Your task to perform on an android device: toggle notification dots Image 0: 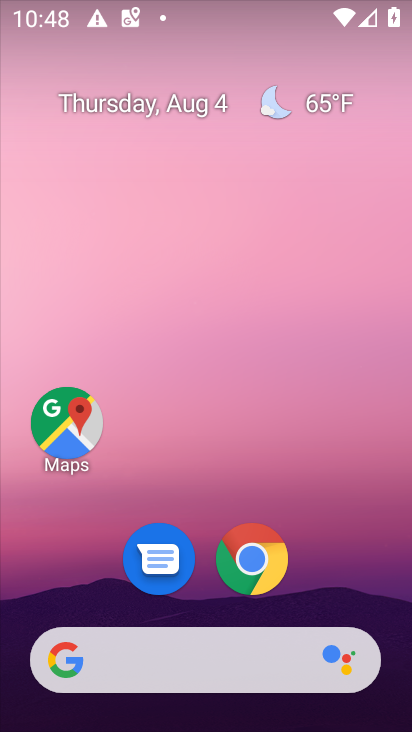
Step 0: drag from (197, 645) to (161, 108)
Your task to perform on an android device: toggle notification dots Image 1: 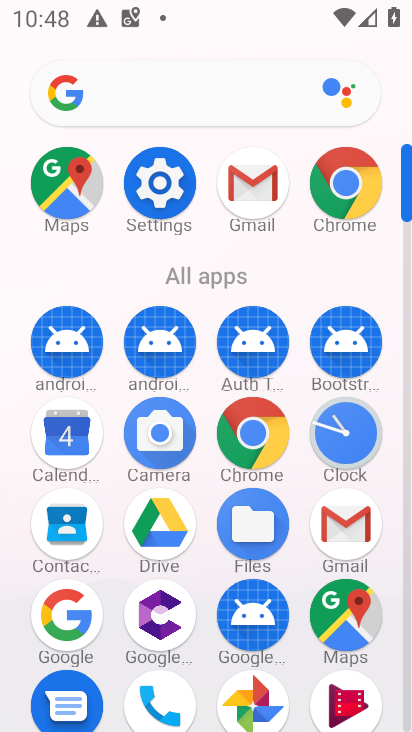
Step 1: click (151, 182)
Your task to perform on an android device: toggle notification dots Image 2: 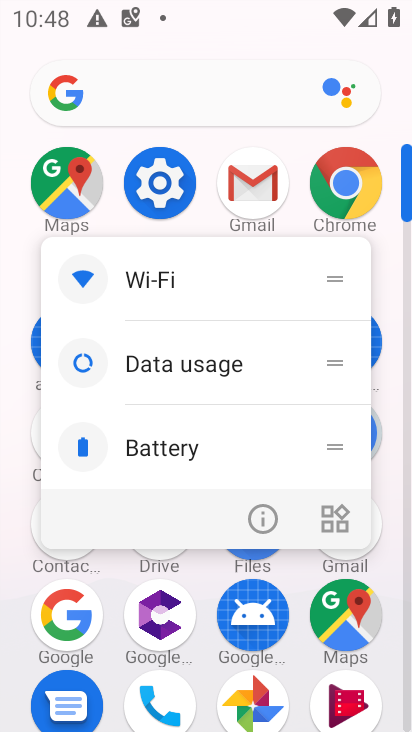
Step 2: click (180, 211)
Your task to perform on an android device: toggle notification dots Image 3: 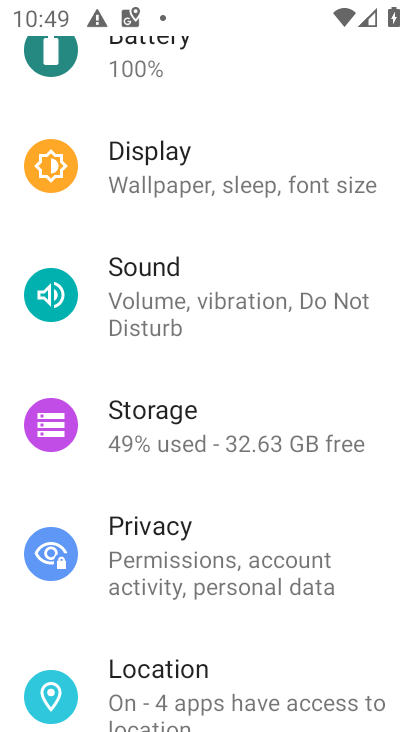
Step 3: drag from (173, 307) to (169, 730)
Your task to perform on an android device: toggle notification dots Image 4: 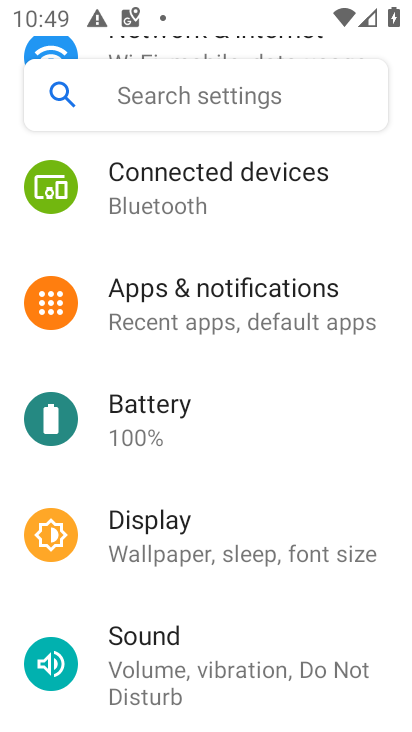
Step 4: click (200, 318)
Your task to perform on an android device: toggle notification dots Image 5: 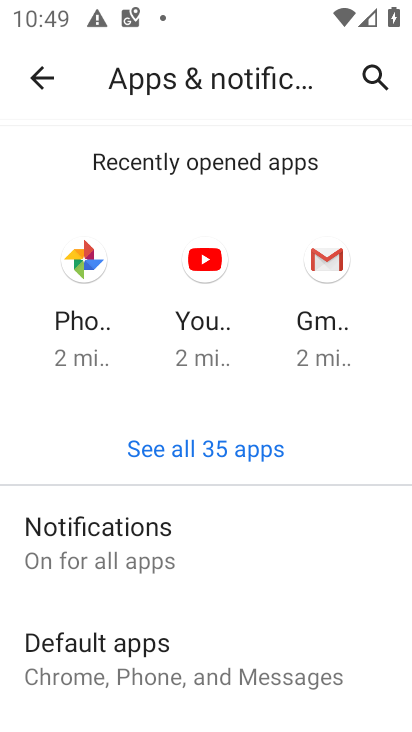
Step 5: click (159, 574)
Your task to perform on an android device: toggle notification dots Image 6: 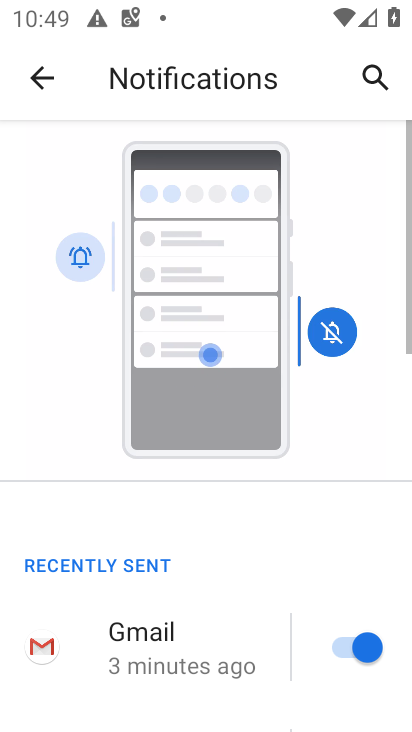
Step 6: drag from (219, 663) to (224, 109)
Your task to perform on an android device: toggle notification dots Image 7: 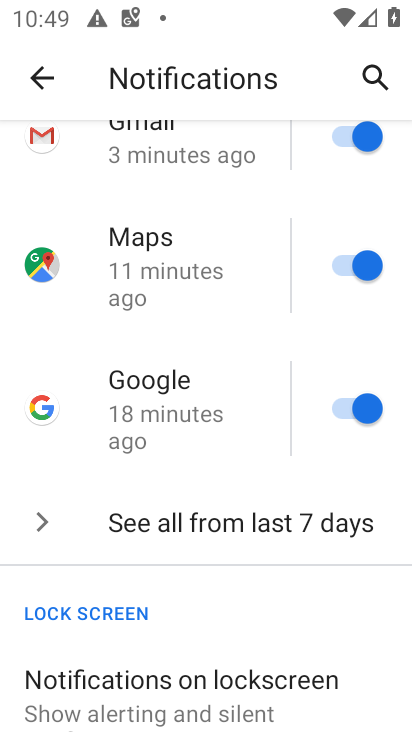
Step 7: drag from (184, 678) to (171, 187)
Your task to perform on an android device: toggle notification dots Image 8: 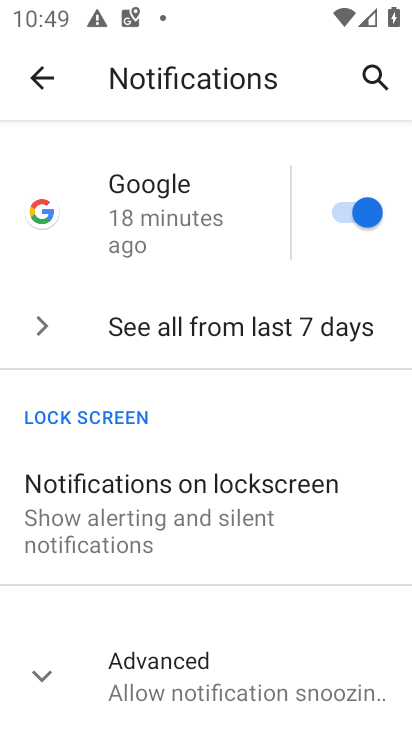
Step 8: click (153, 660)
Your task to perform on an android device: toggle notification dots Image 9: 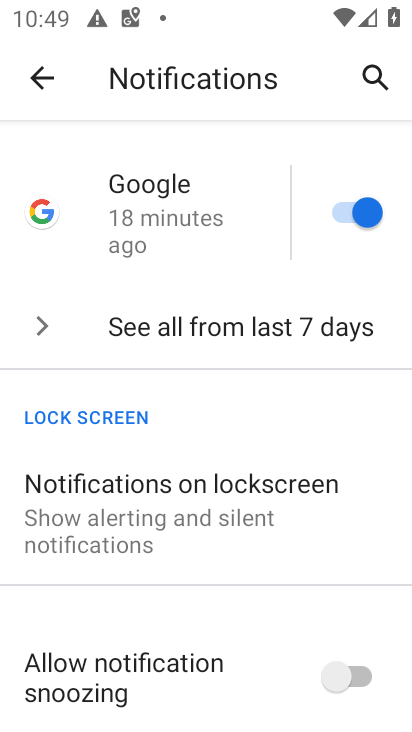
Step 9: drag from (191, 615) to (163, 137)
Your task to perform on an android device: toggle notification dots Image 10: 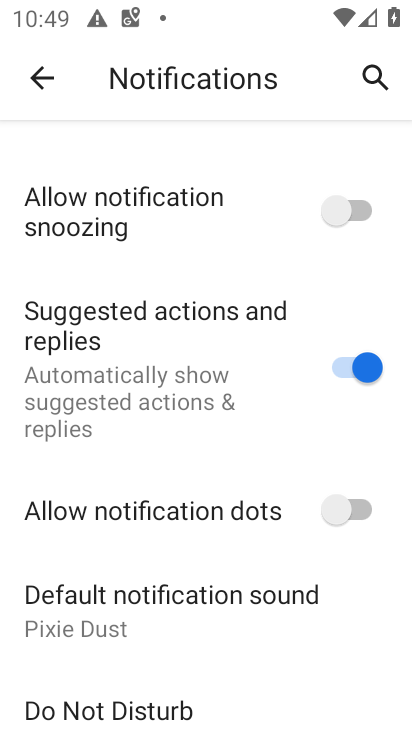
Step 10: click (338, 508)
Your task to perform on an android device: toggle notification dots Image 11: 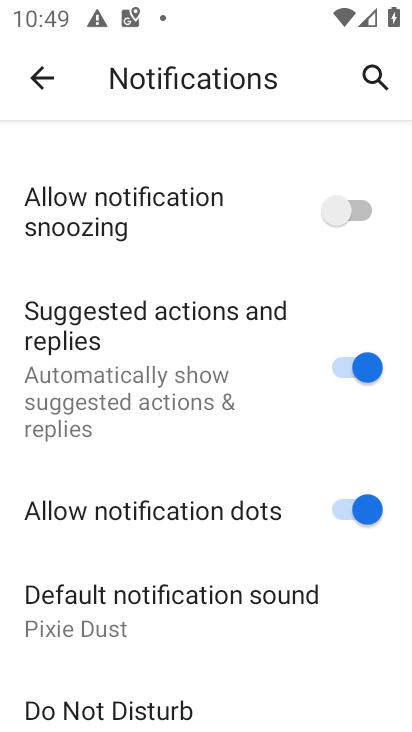
Step 11: task complete